Your task to perform on an android device: Go to sound settings Image 0: 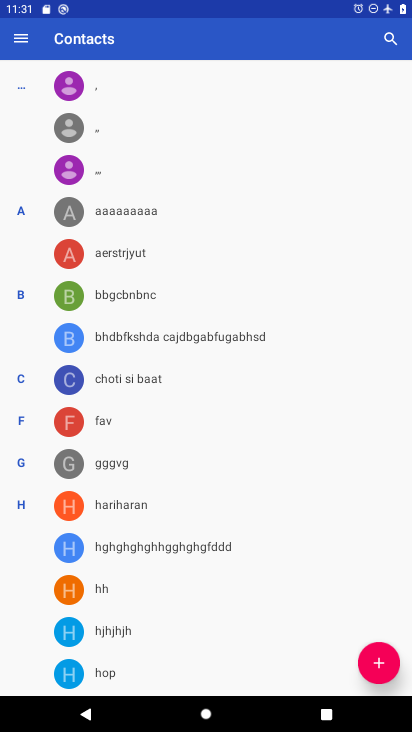
Step 0: press home button
Your task to perform on an android device: Go to sound settings Image 1: 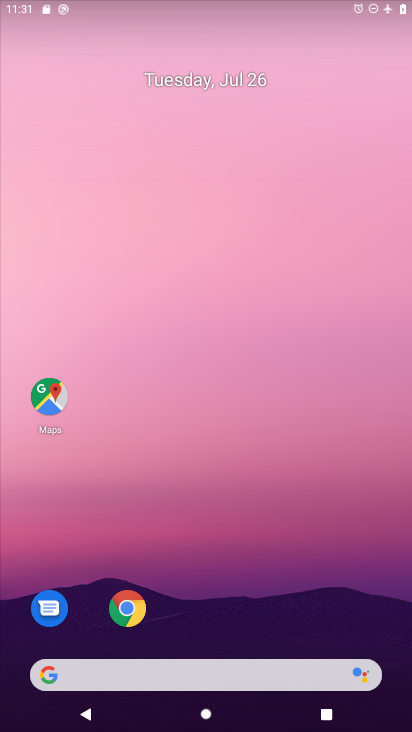
Step 1: drag from (311, 589) to (320, 95)
Your task to perform on an android device: Go to sound settings Image 2: 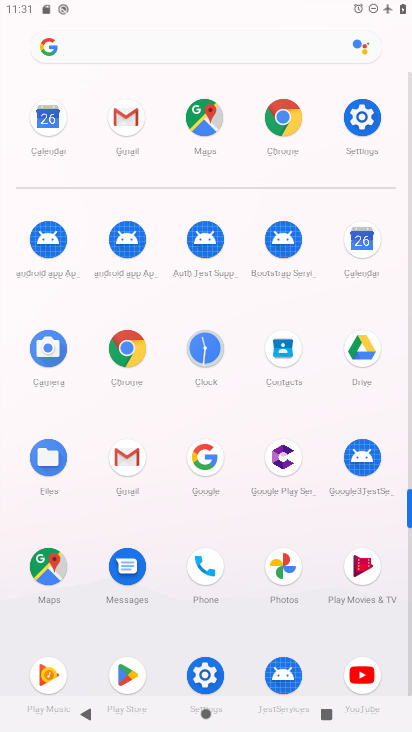
Step 2: click (371, 119)
Your task to perform on an android device: Go to sound settings Image 3: 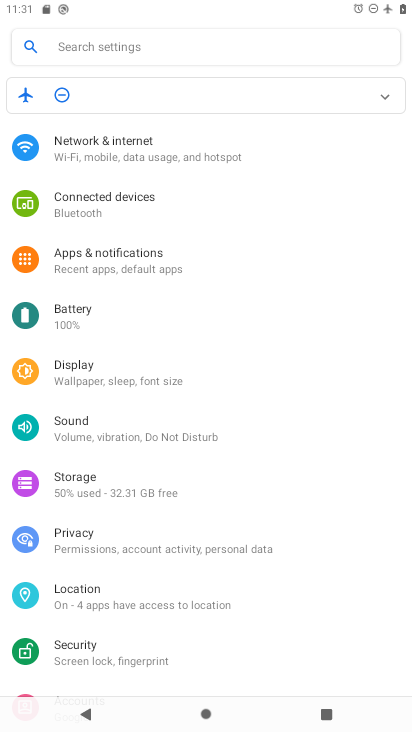
Step 3: click (96, 435)
Your task to perform on an android device: Go to sound settings Image 4: 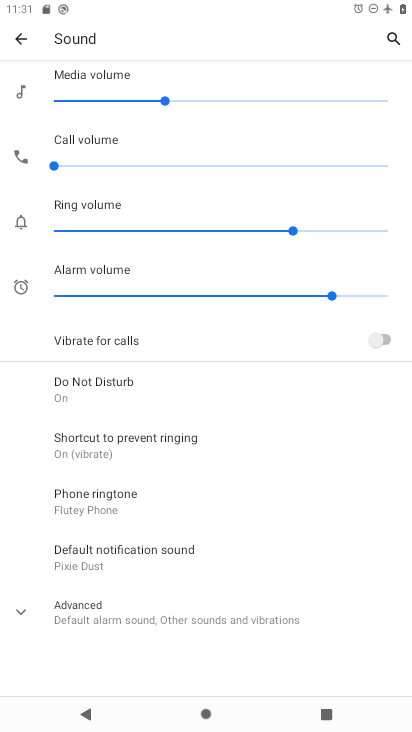
Step 4: task complete